Your task to perform on an android device: search for starred emails in the gmail app Image 0: 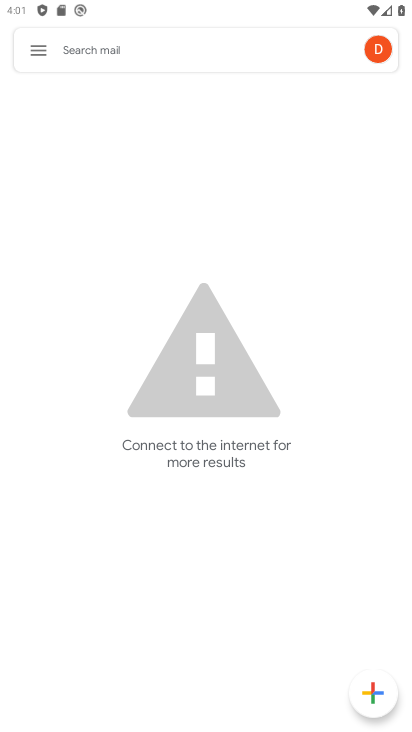
Step 0: click (37, 42)
Your task to perform on an android device: search for starred emails in the gmail app Image 1: 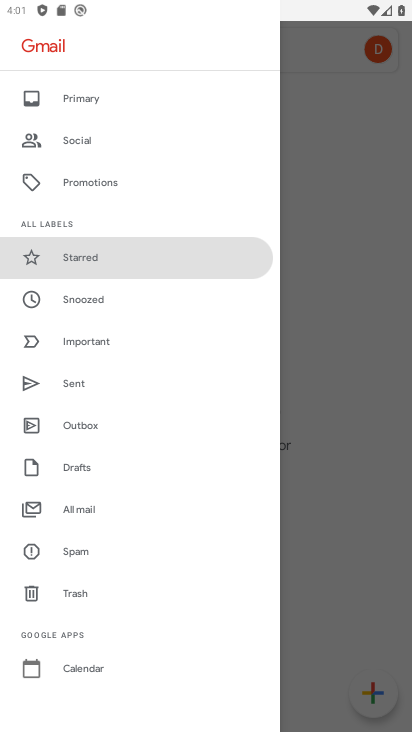
Step 1: click (78, 251)
Your task to perform on an android device: search for starred emails in the gmail app Image 2: 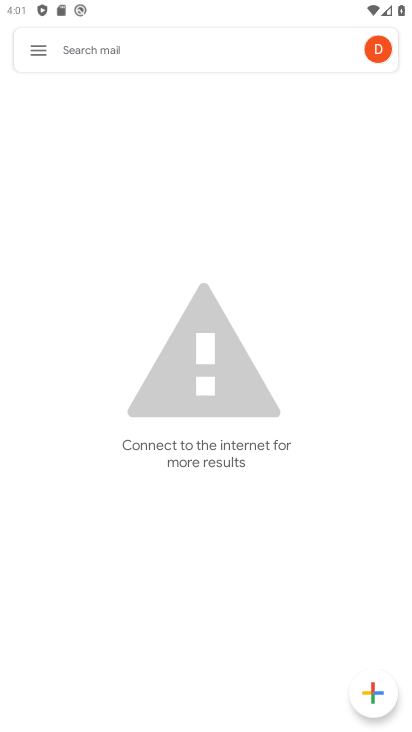
Step 2: task complete